Your task to perform on an android device: View the shopping cart on bestbuy. Search for razer nari on bestbuy, select the first entry, add it to the cart, then select checkout. Image 0: 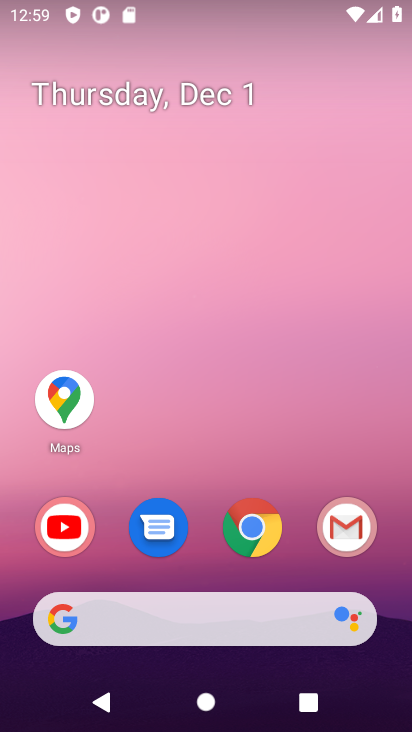
Step 0: click (253, 533)
Your task to perform on an android device: View the shopping cart on bestbuy. Search for razer nari on bestbuy, select the first entry, add it to the cart, then select checkout. Image 1: 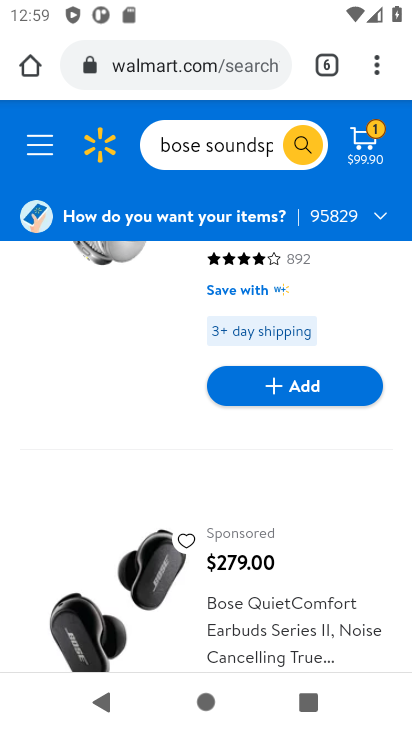
Step 1: click (167, 59)
Your task to perform on an android device: View the shopping cart on bestbuy. Search for razer nari on bestbuy, select the first entry, add it to the cart, then select checkout. Image 2: 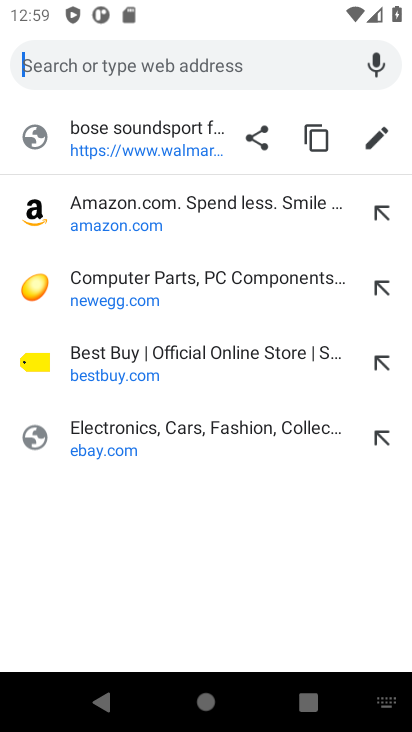
Step 2: click (116, 377)
Your task to perform on an android device: View the shopping cart on bestbuy. Search for razer nari on bestbuy, select the first entry, add it to the cart, then select checkout. Image 3: 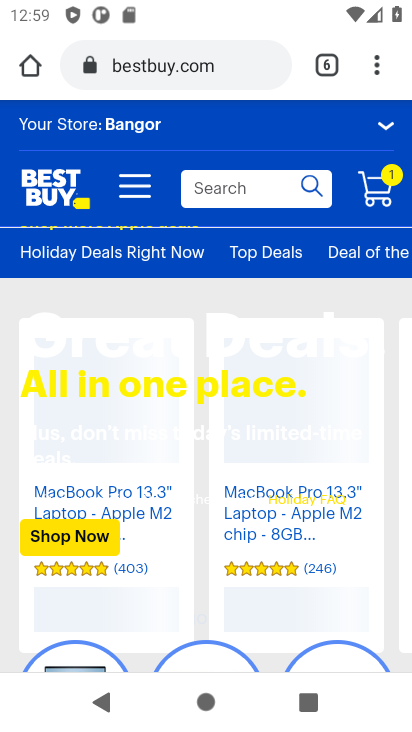
Step 3: click (374, 171)
Your task to perform on an android device: View the shopping cart on bestbuy. Search for razer nari on bestbuy, select the first entry, add it to the cart, then select checkout. Image 4: 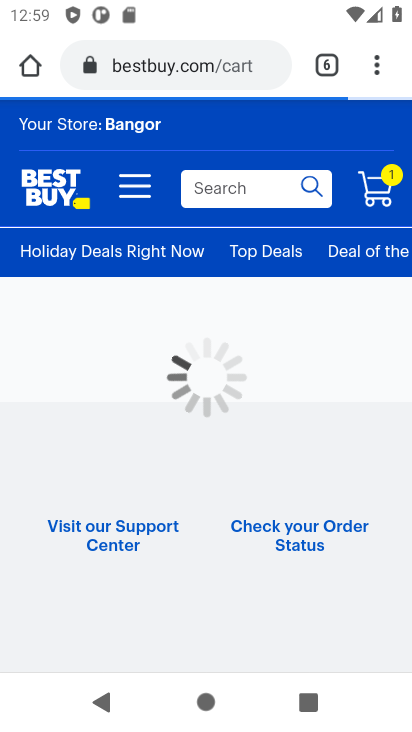
Step 4: click (374, 188)
Your task to perform on an android device: View the shopping cart on bestbuy. Search for razer nari on bestbuy, select the first entry, add it to the cart, then select checkout. Image 5: 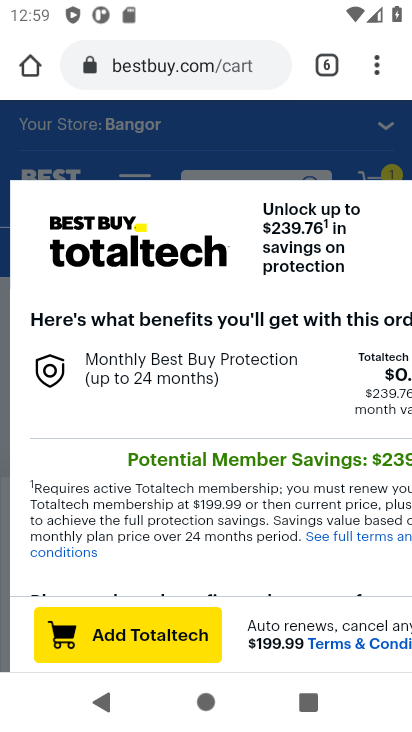
Step 5: click (244, 146)
Your task to perform on an android device: View the shopping cart on bestbuy. Search for razer nari on bestbuy, select the first entry, add it to the cart, then select checkout. Image 6: 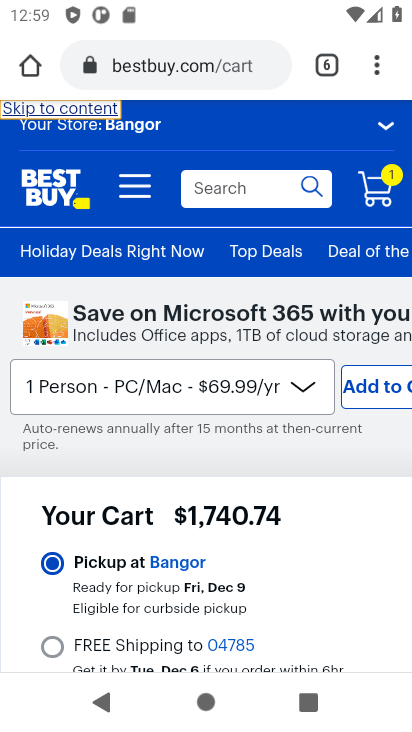
Step 6: drag from (249, 469) to (243, 170)
Your task to perform on an android device: View the shopping cart on bestbuy. Search for razer nari on bestbuy, select the first entry, add it to the cart, then select checkout. Image 7: 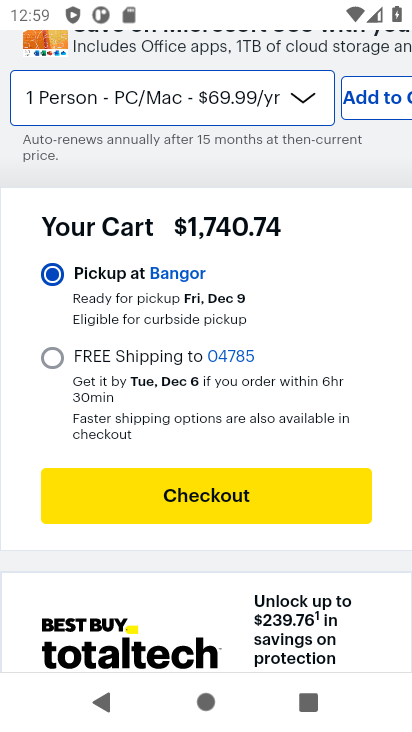
Step 7: drag from (312, 221) to (303, 540)
Your task to perform on an android device: View the shopping cart on bestbuy. Search for razer nari on bestbuy, select the first entry, add it to the cart, then select checkout. Image 8: 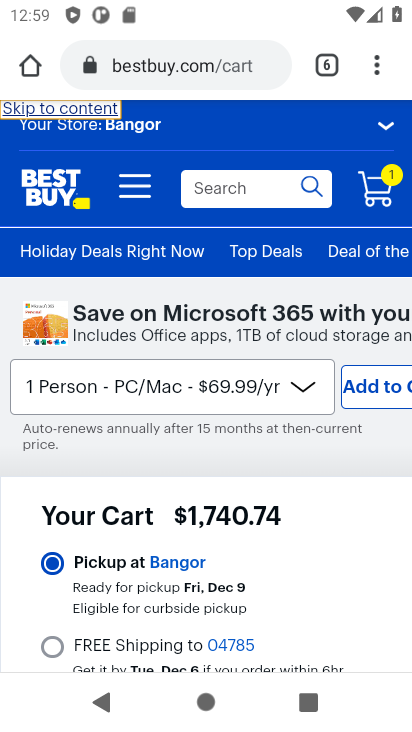
Step 8: click (221, 195)
Your task to perform on an android device: View the shopping cart on bestbuy. Search for razer nari on bestbuy, select the first entry, add it to the cart, then select checkout. Image 9: 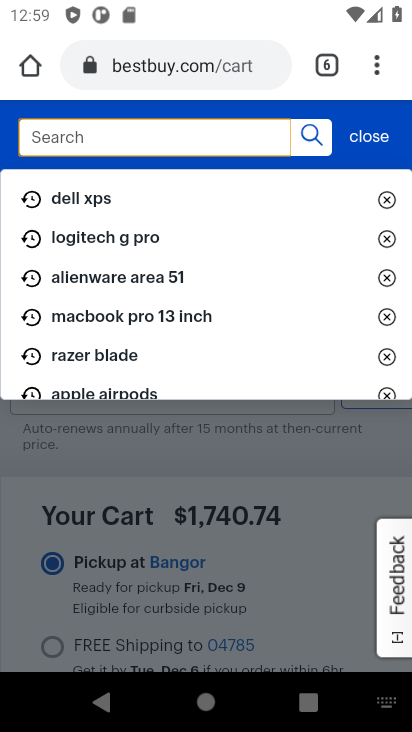
Step 9: type "razer nari"
Your task to perform on an android device: View the shopping cart on bestbuy. Search for razer nari on bestbuy, select the first entry, add it to the cart, then select checkout. Image 10: 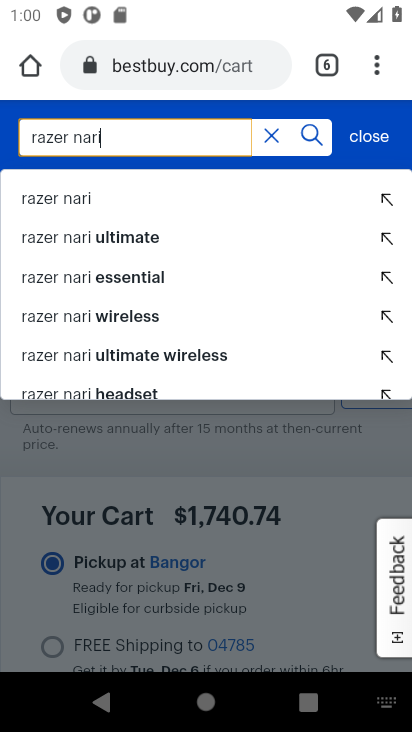
Step 10: click (57, 199)
Your task to perform on an android device: View the shopping cart on bestbuy. Search for razer nari on bestbuy, select the first entry, add it to the cart, then select checkout. Image 11: 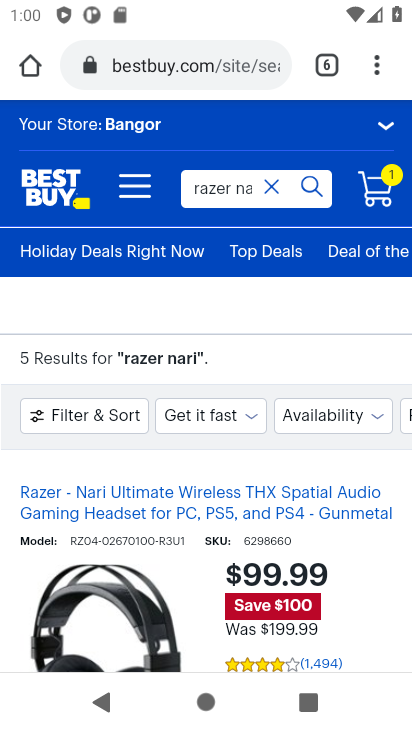
Step 11: drag from (161, 514) to (155, 371)
Your task to perform on an android device: View the shopping cart on bestbuy. Search for razer nari on bestbuy, select the first entry, add it to the cart, then select checkout. Image 12: 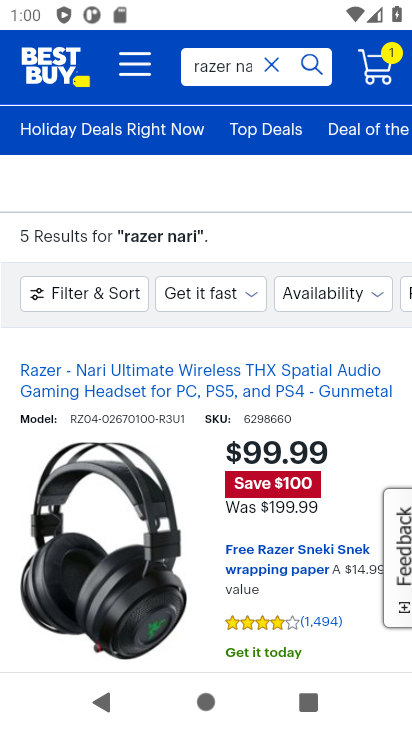
Step 12: drag from (208, 503) to (196, 348)
Your task to perform on an android device: View the shopping cart on bestbuy. Search for razer nari on bestbuy, select the first entry, add it to the cart, then select checkout. Image 13: 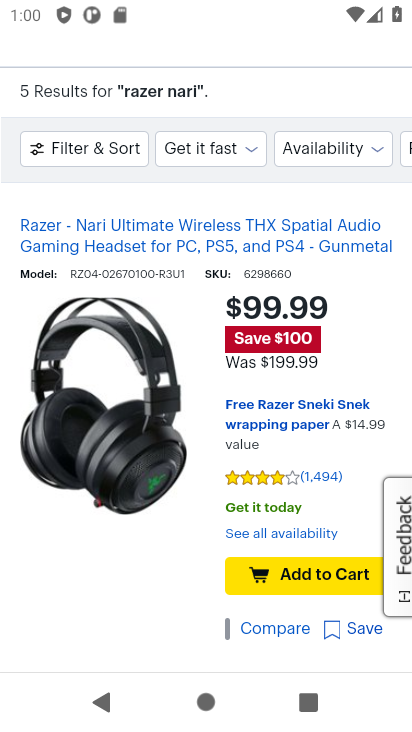
Step 13: click (311, 580)
Your task to perform on an android device: View the shopping cart on bestbuy. Search for razer nari on bestbuy, select the first entry, add it to the cart, then select checkout. Image 14: 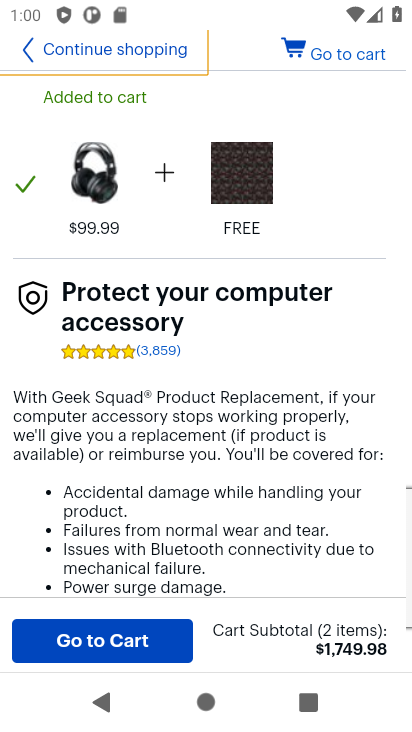
Step 14: click (344, 67)
Your task to perform on an android device: View the shopping cart on bestbuy. Search for razer nari on bestbuy, select the first entry, add it to the cart, then select checkout. Image 15: 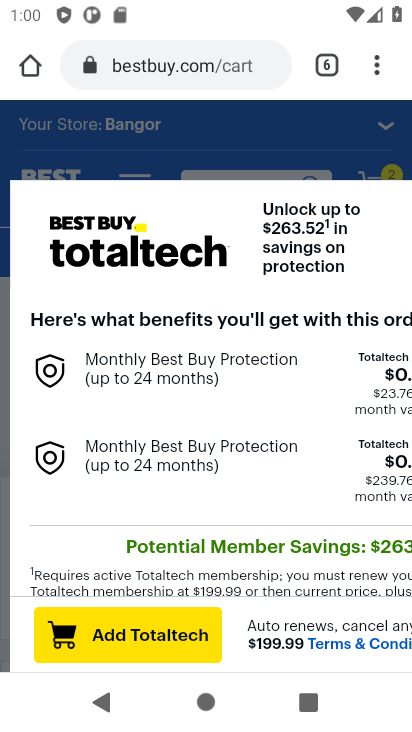
Step 15: click (206, 127)
Your task to perform on an android device: View the shopping cart on bestbuy. Search for razer nari on bestbuy, select the first entry, add it to the cart, then select checkout. Image 16: 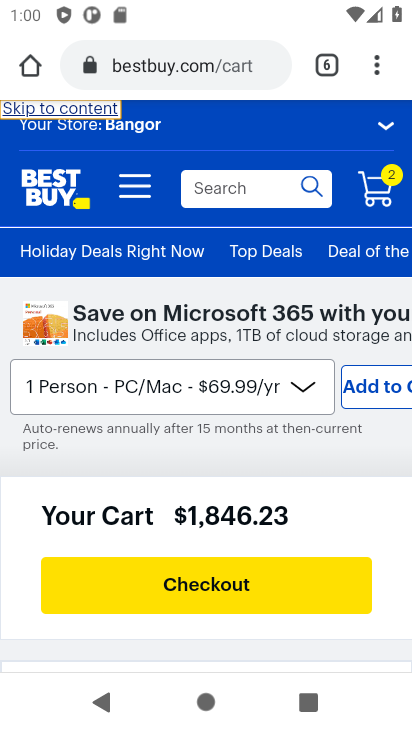
Step 16: click (195, 564)
Your task to perform on an android device: View the shopping cart on bestbuy. Search for razer nari on bestbuy, select the first entry, add it to the cart, then select checkout. Image 17: 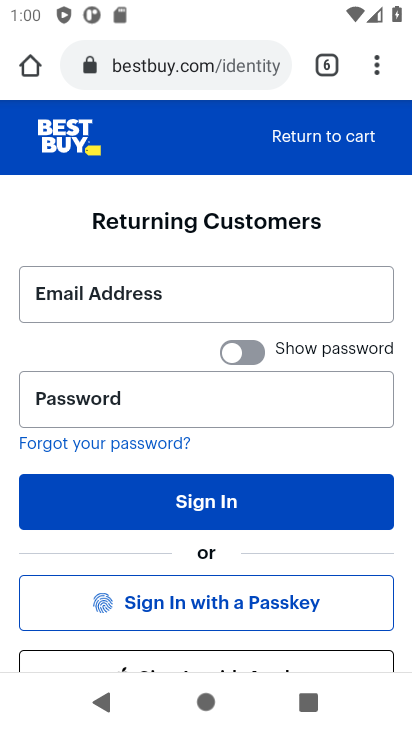
Step 17: task complete